Your task to perform on an android device: install app "Google News" Image 0: 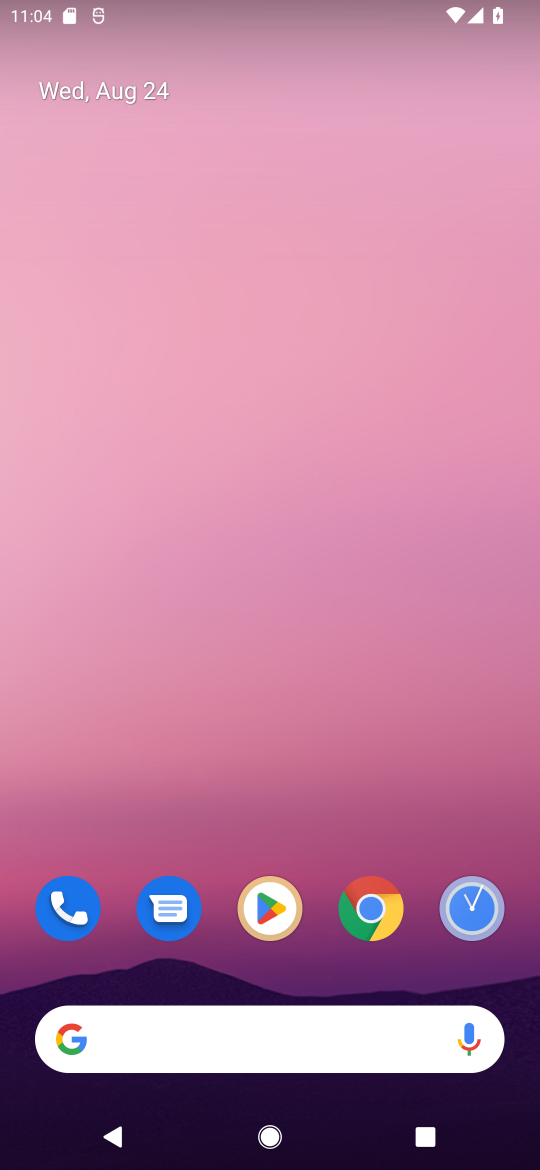
Step 0: click (270, 918)
Your task to perform on an android device: install app "Google News" Image 1: 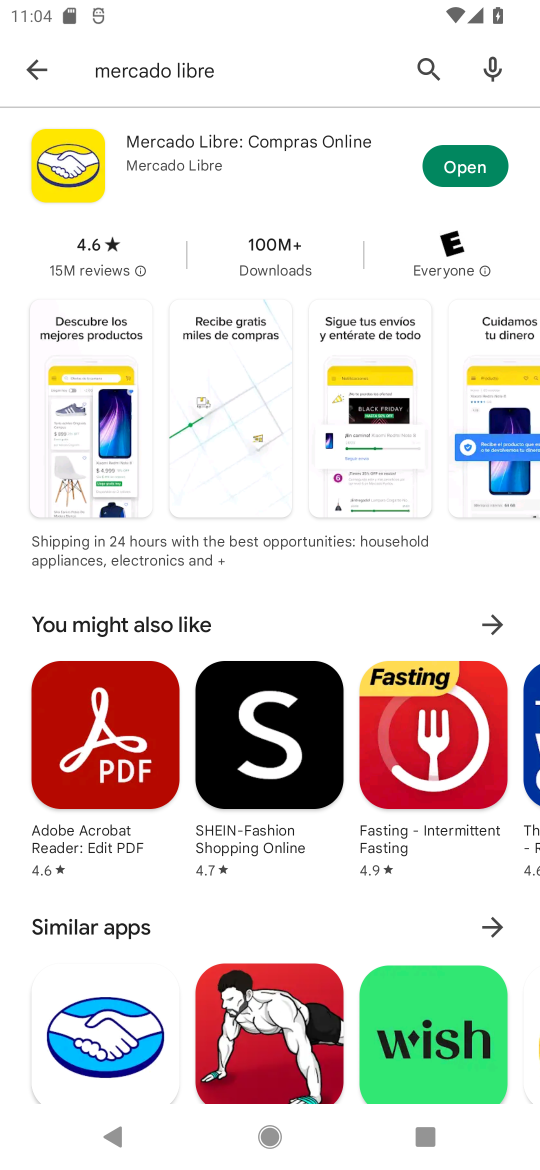
Step 1: click (25, 78)
Your task to perform on an android device: install app "Google News" Image 2: 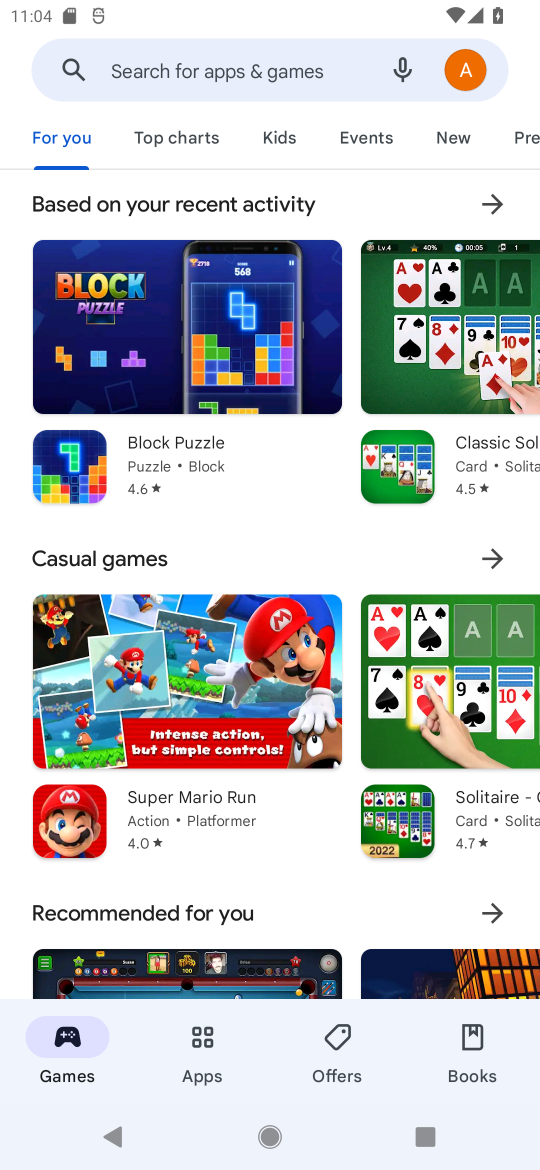
Step 2: click (103, 77)
Your task to perform on an android device: install app "Google News" Image 3: 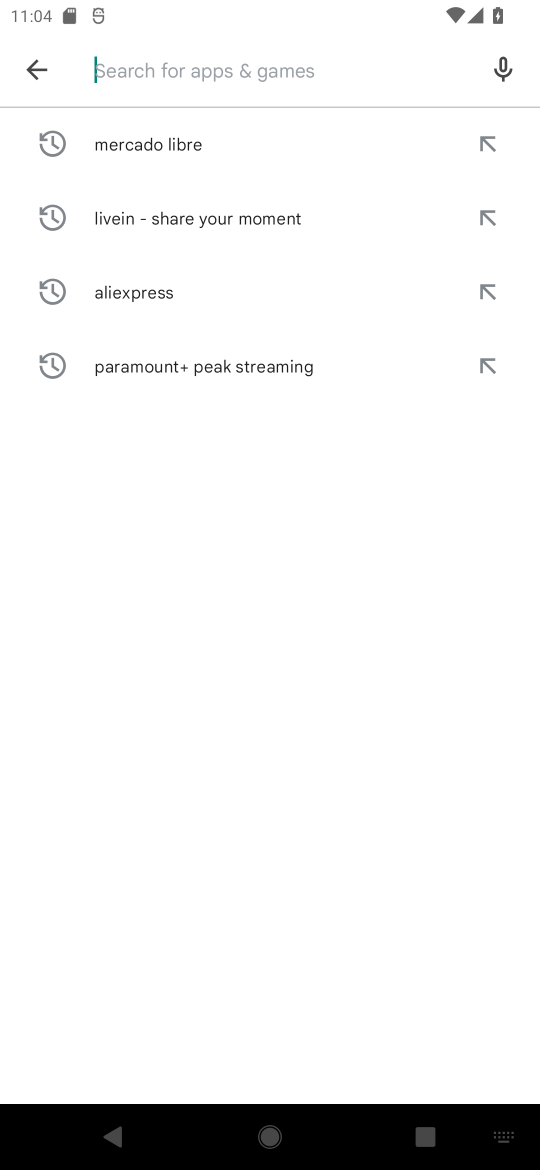
Step 3: type "Google News"
Your task to perform on an android device: install app "Google News" Image 4: 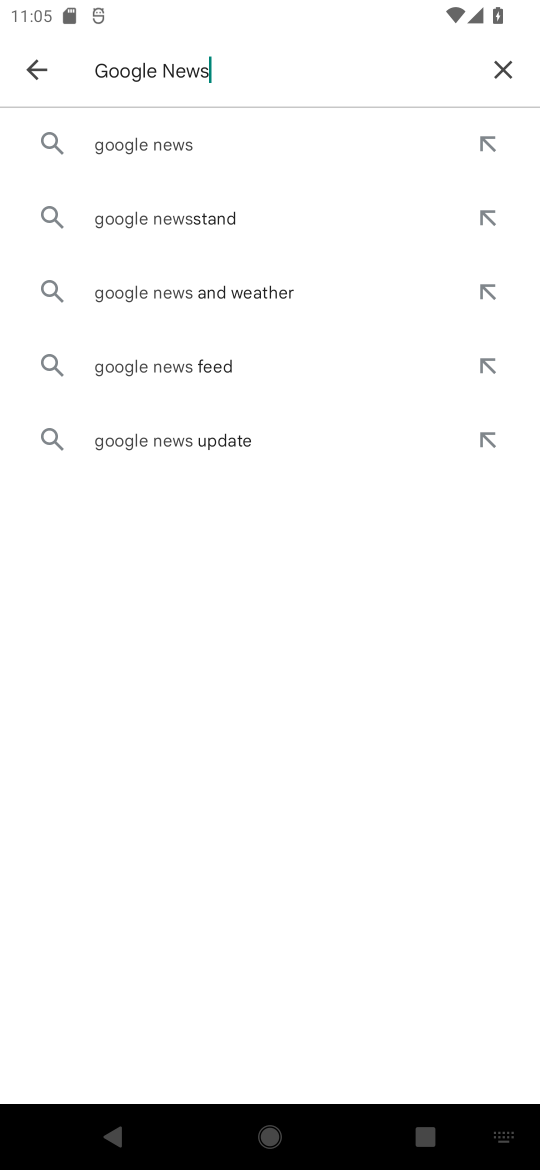
Step 4: click (154, 139)
Your task to perform on an android device: install app "Google News" Image 5: 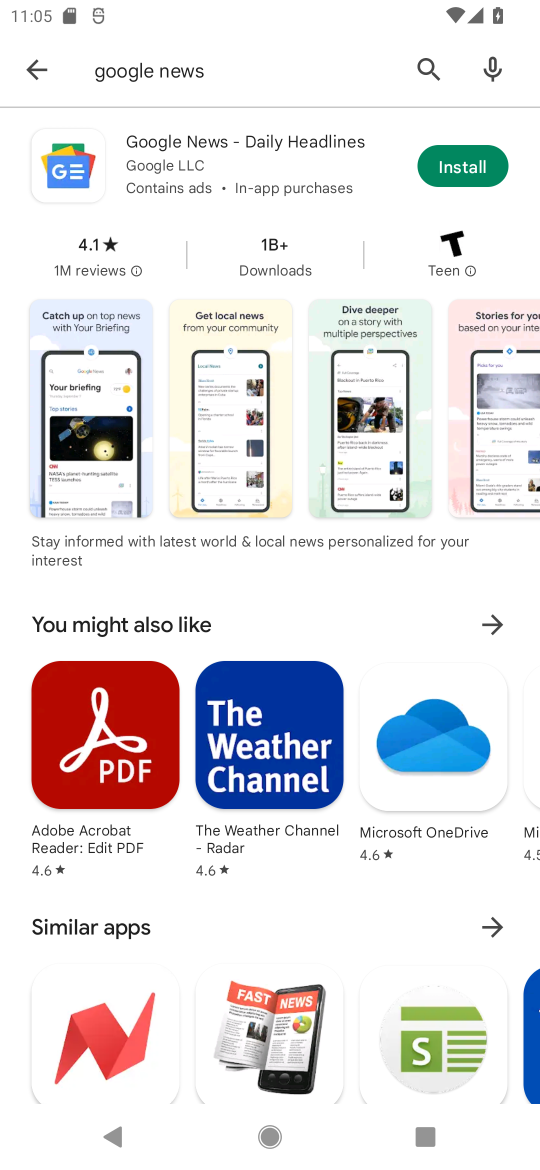
Step 5: click (451, 163)
Your task to perform on an android device: install app "Google News" Image 6: 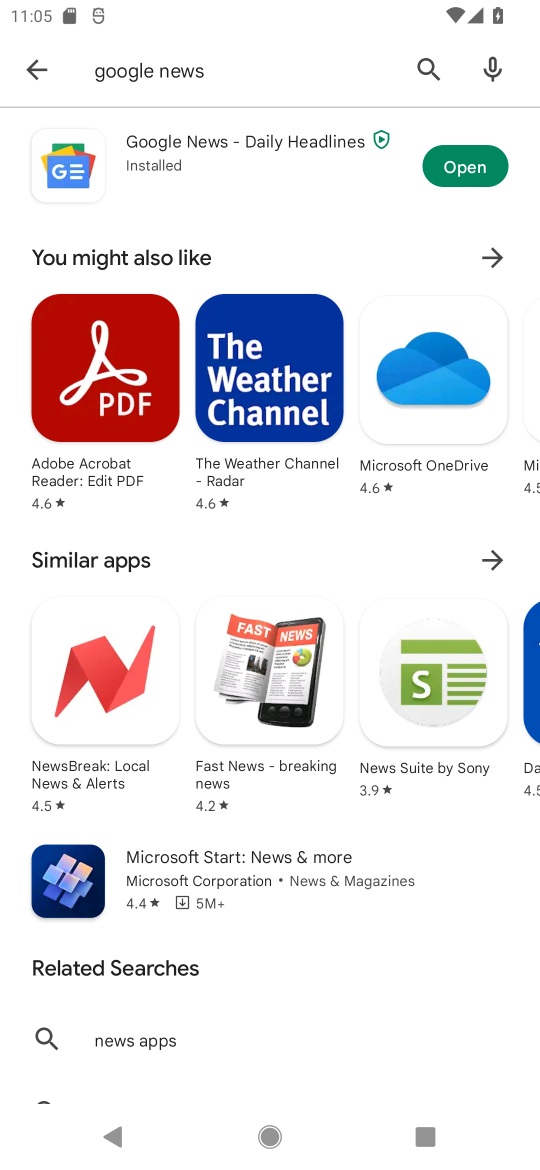
Step 6: task complete